Your task to perform on an android device: What's the weather? Image 0: 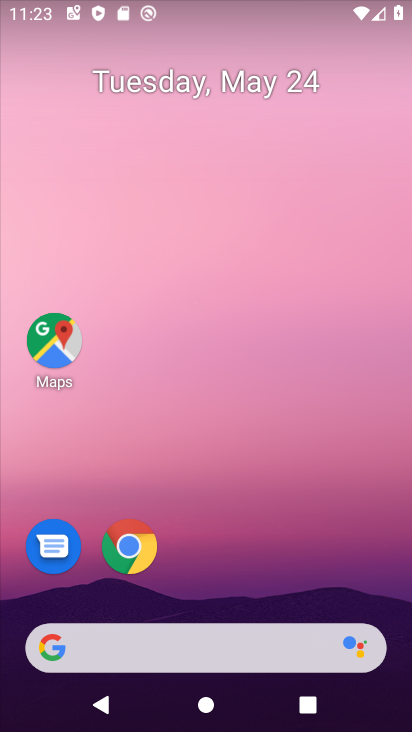
Step 0: click (248, 630)
Your task to perform on an android device: What's the weather? Image 1: 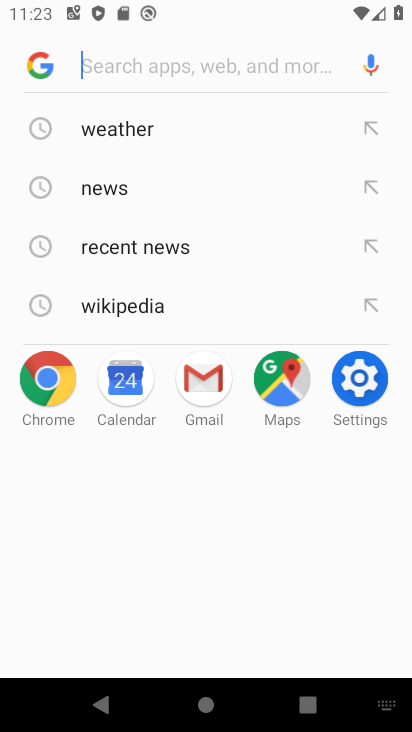
Step 1: click (203, 133)
Your task to perform on an android device: What's the weather? Image 2: 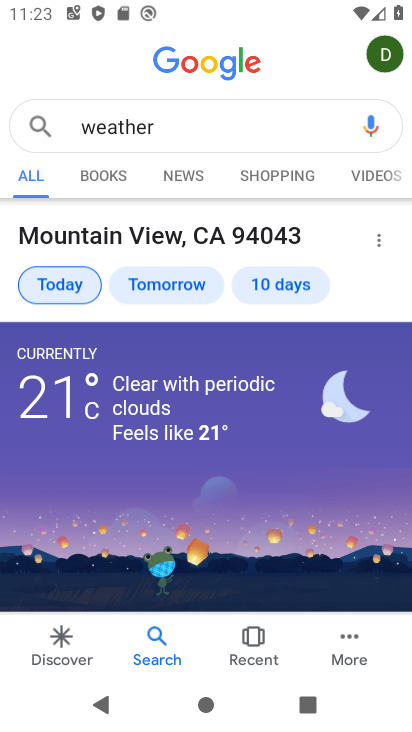
Step 2: task complete